Your task to perform on an android device: turn off sleep mode Image 0: 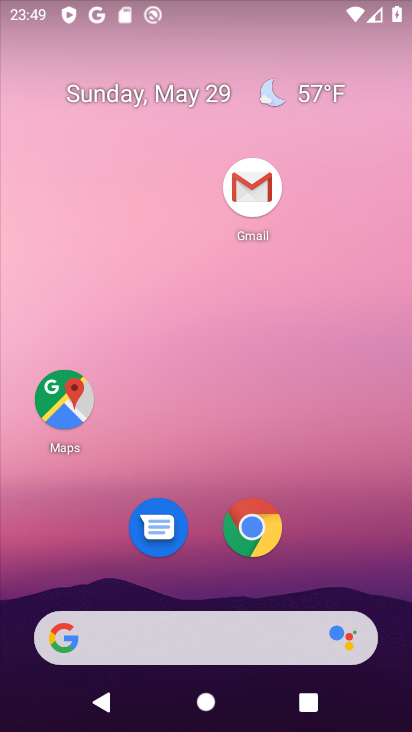
Step 0: drag from (339, 544) to (304, 118)
Your task to perform on an android device: turn off sleep mode Image 1: 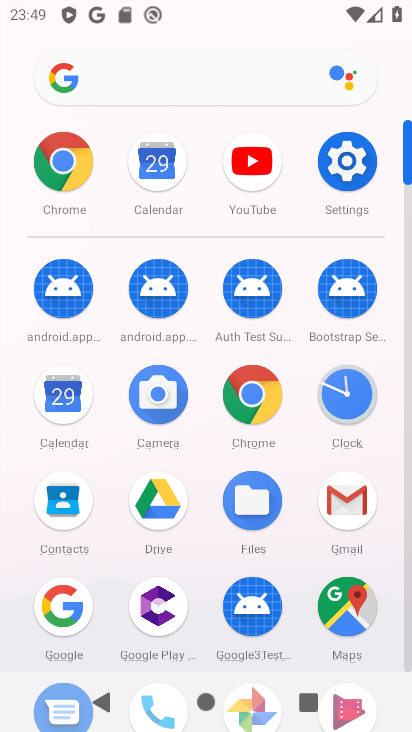
Step 1: click (349, 162)
Your task to perform on an android device: turn off sleep mode Image 2: 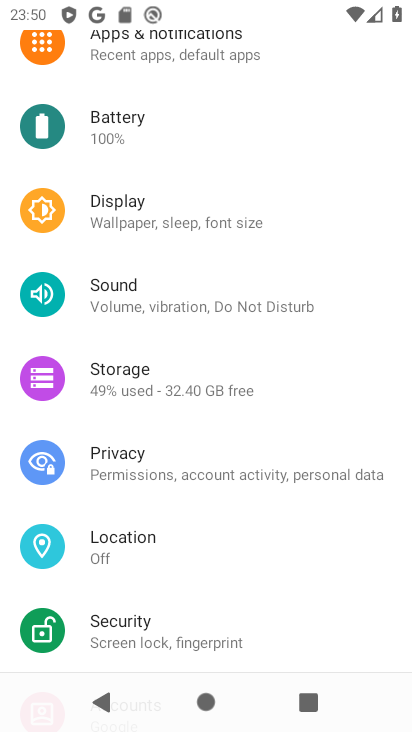
Step 2: click (190, 220)
Your task to perform on an android device: turn off sleep mode Image 3: 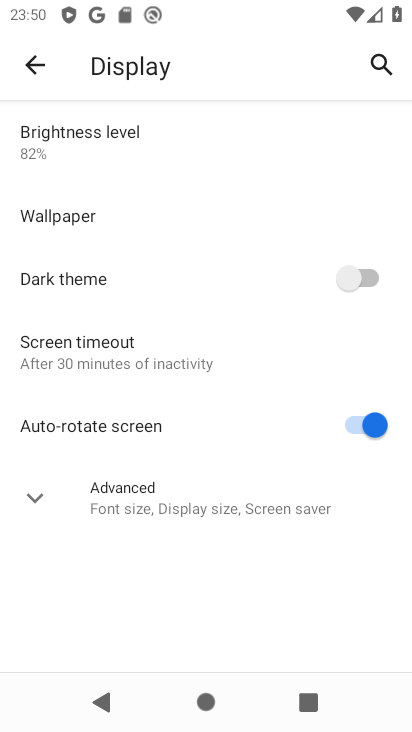
Step 3: click (169, 361)
Your task to perform on an android device: turn off sleep mode Image 4: 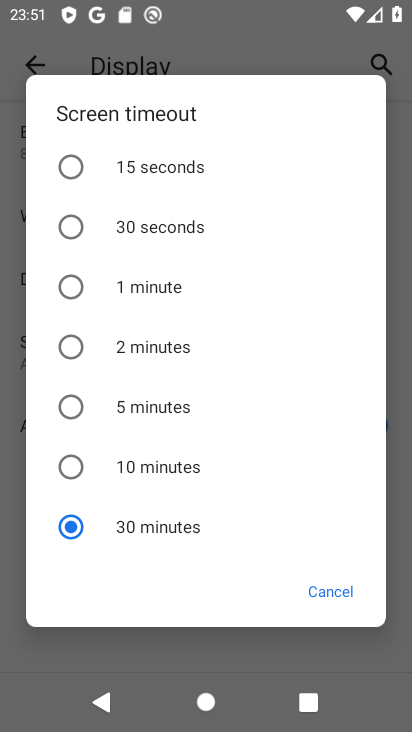
Step 4: click (333, 596)
Your task to perform on an android device: turn off sleep mode Image 5: 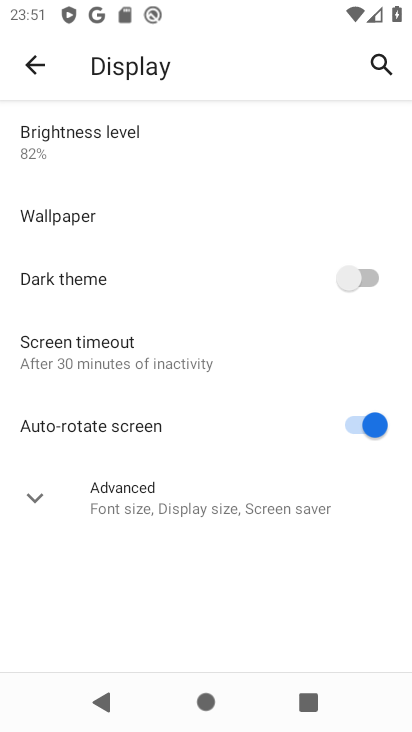
Step 5: task complete